Your task to perform on an android device: visit the assistant section in the google photos Image 0: 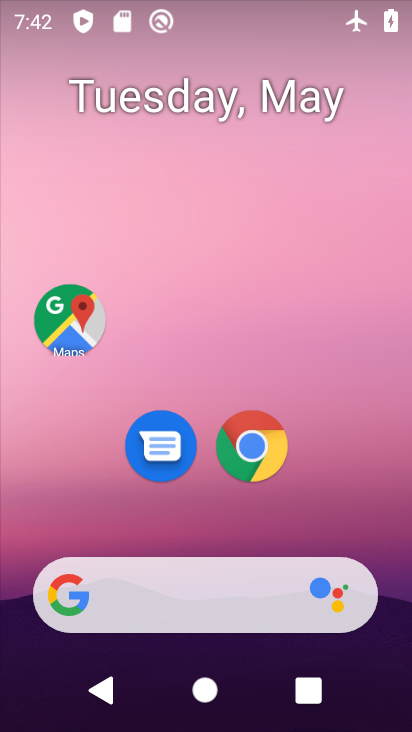
Step 0: drag from (357, 555) to (375, 14)
Your task to perform on an android device: visit the assistant section in the google photos Image 1: 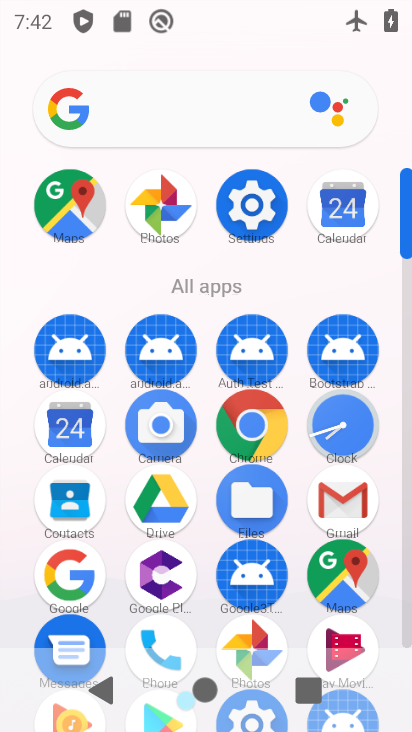
Step 1: click (162, 213)
Your task to perform on an android device: visit the assistant section in the google photos Image 2: 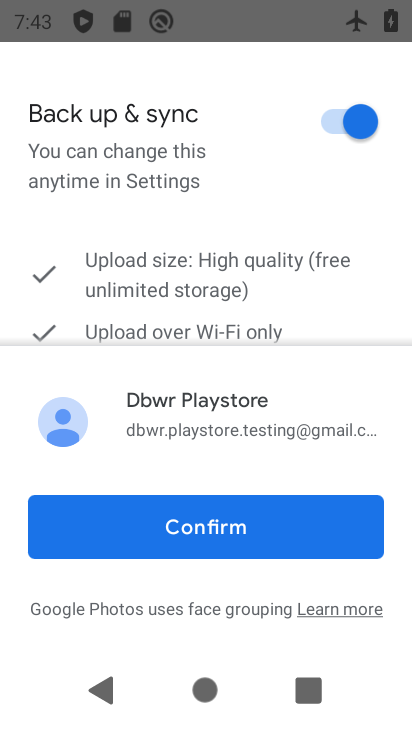
Step 2: click (191, 528)
Your task to perform on an android device: visit the assistant section in the google photos Image 3: 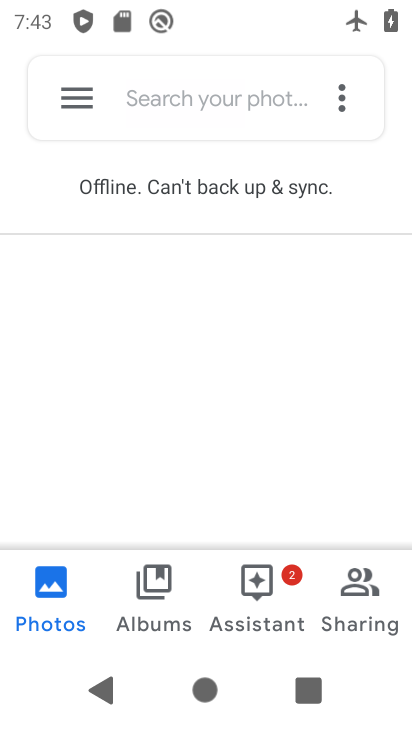
Step 3: click (255, 608)
Your task to perform on an android device: visit the assistant section in the google photos Image 4: 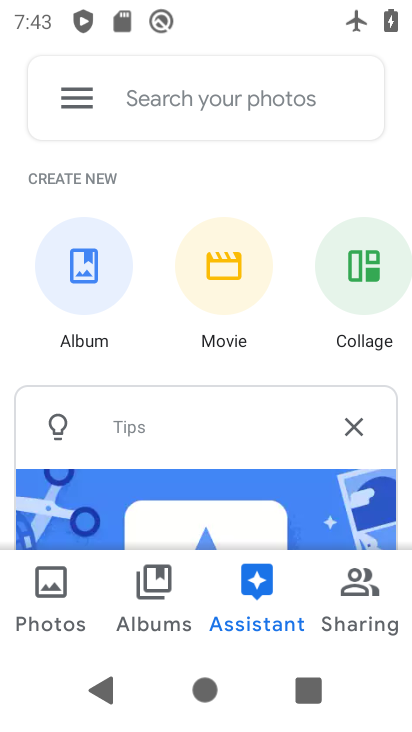
Step 4: task complete